Your task to perform on an android device: Open Google Maps Image 0: 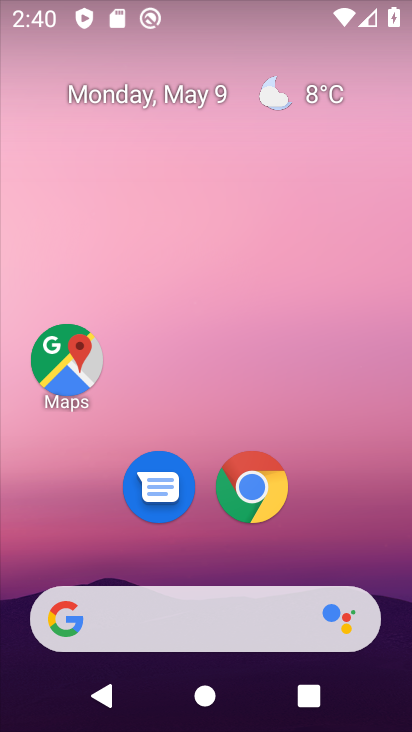
Step 0: click (217, 61)
Your task to perform on an android device: Open Google Maps Image 1: 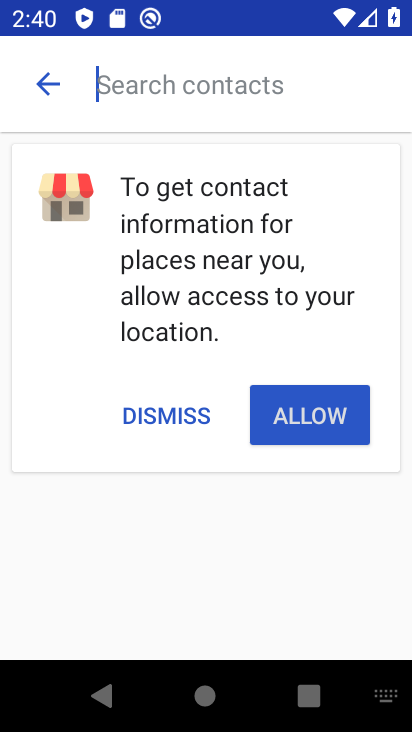
Step 1: click (49, 92)
Your task to perform on an android device: Open Google Maps Image 2: 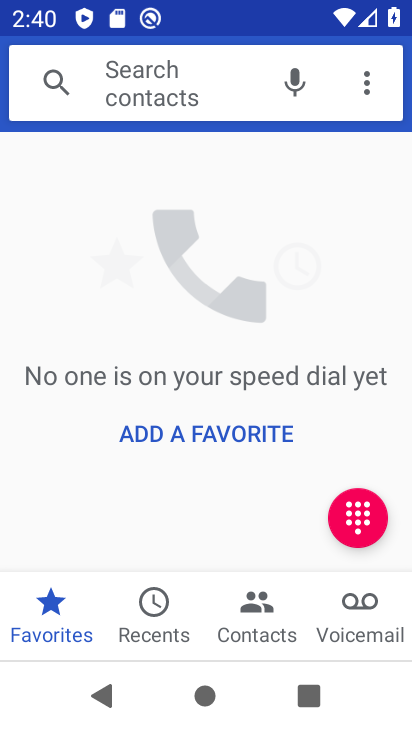
Step 2: press home button
Your task to perform on an android device: Open Google Maps Image 3: 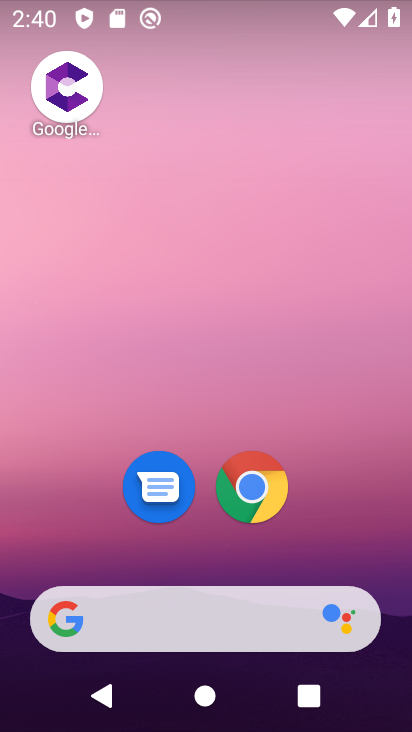
Step 3: drag from (44, 328) to (408, 360)
Your task to perform on an android device: Open Google Maps Image 4: 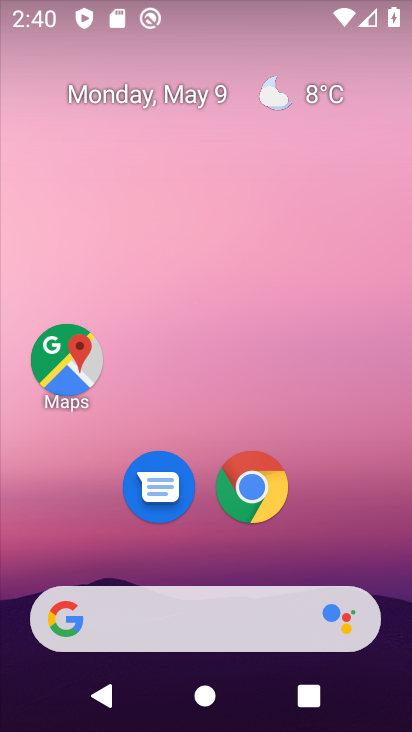
Step 4: click (64, 358)
Your task to perform on an android device: Open Google Maps Image 5: 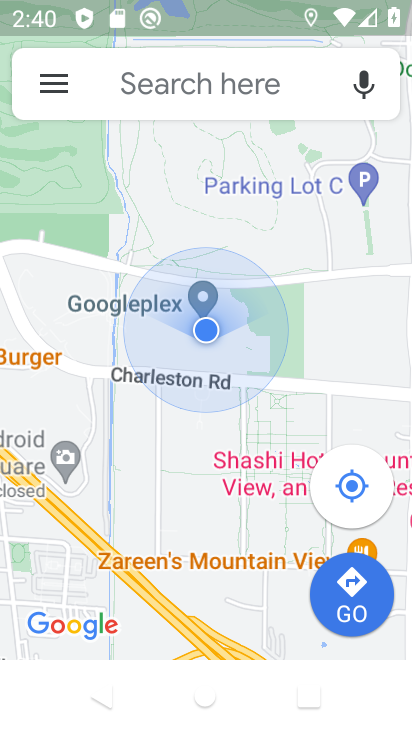
Step 5: drag from (203, 574) to (201, 348)
Your task to perform on an android device: Open Google Maps Image 6: 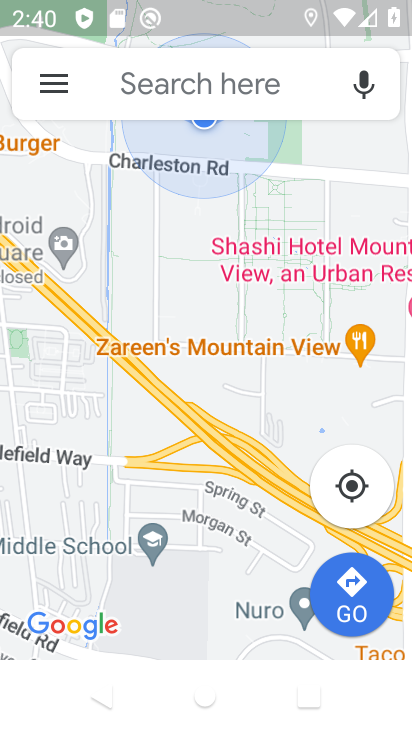
Step 6: click (49, 87)
Your task to perform on an android device: Open Google Maps Image 7: 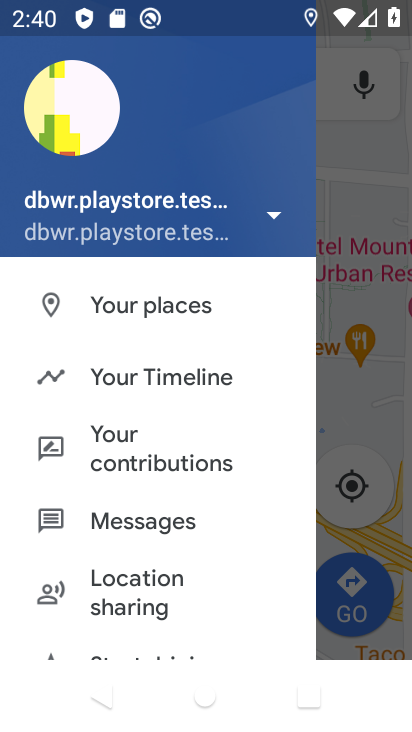
Step 7: task complete